Your task to perform on an android device: Open a new Chrome incognito tab Image 0: 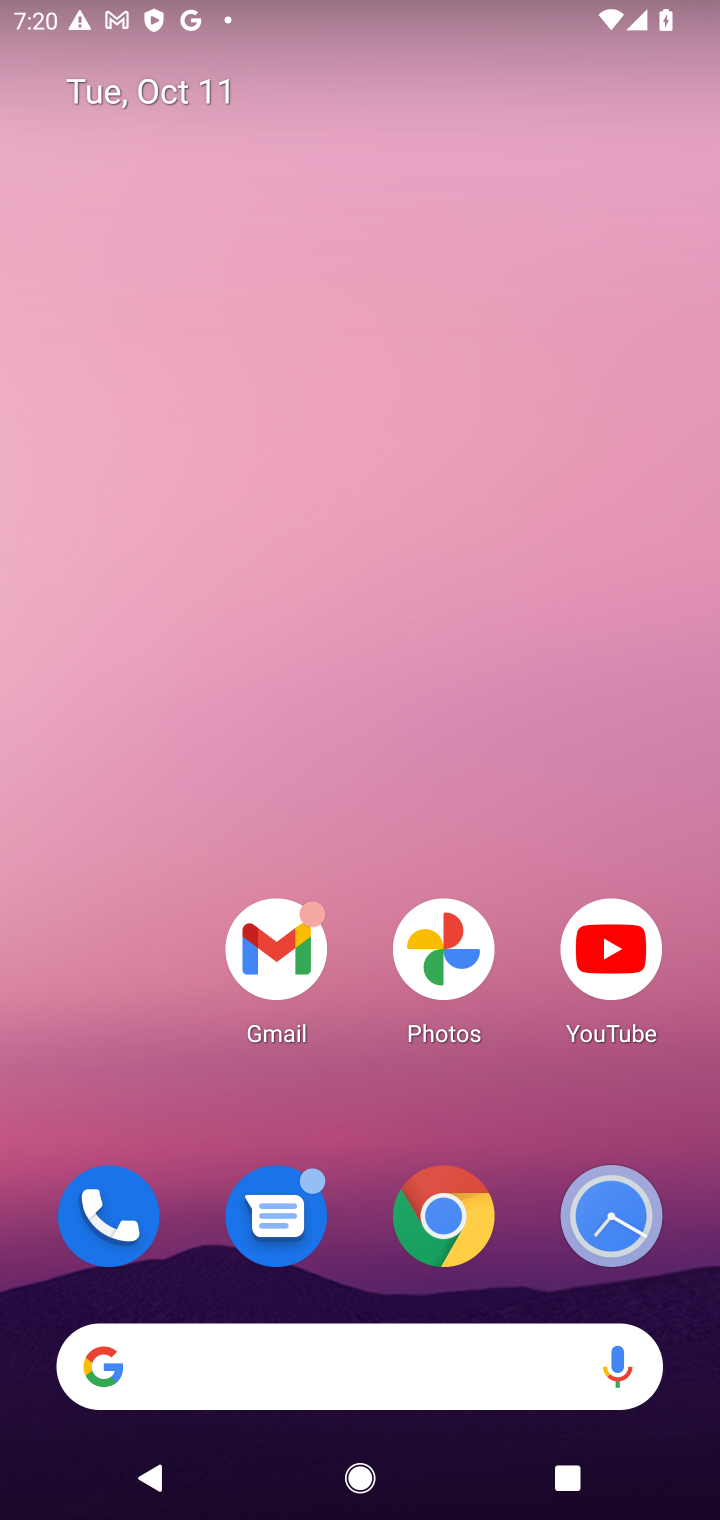
Step 0: click (441, 1238)
Your task to perform on an android device: Open a new Chrome incognito tab Image 1: 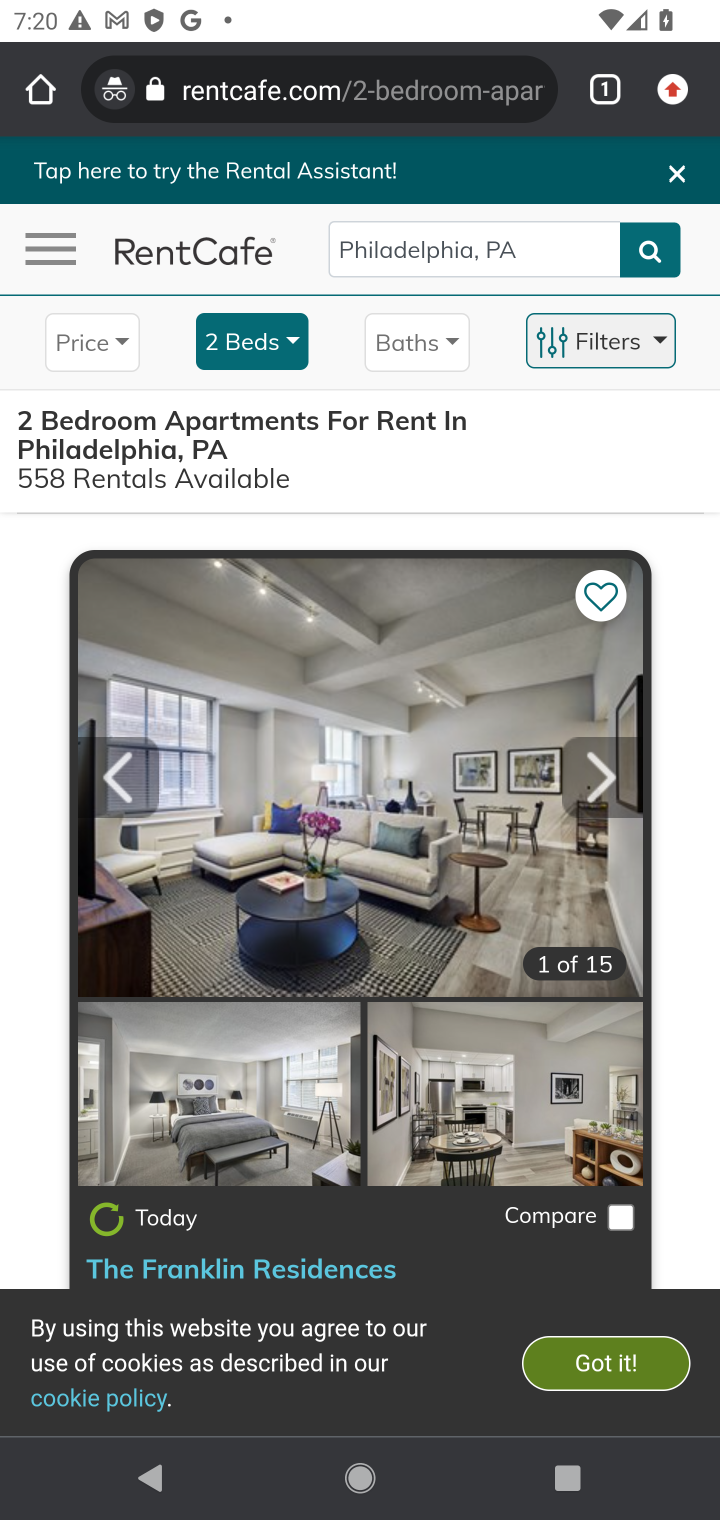
Step 1: click (597, 98)
Your task to perform on an android device: Open a new Chrome incognito tab Image 2: 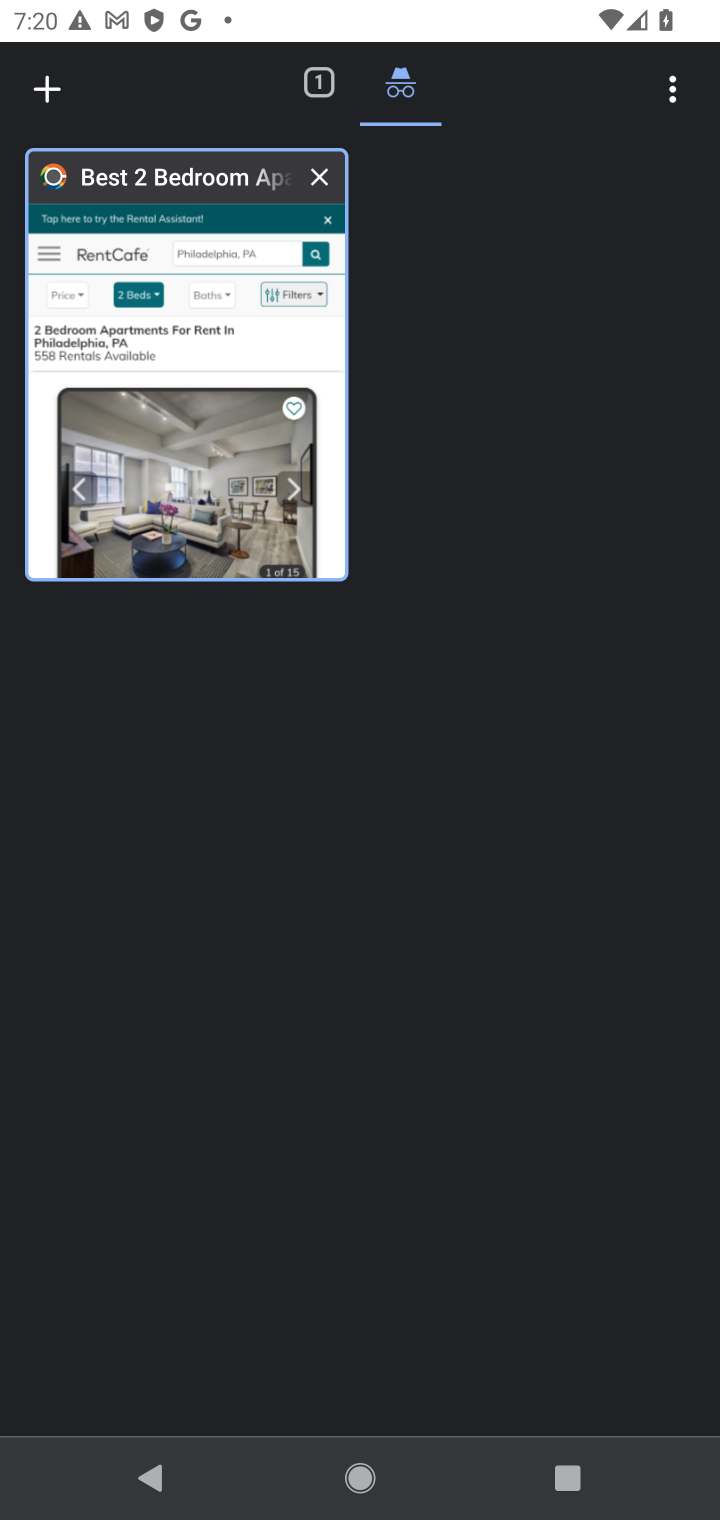
Step 2: click (54, 111)
Your task to perform on an android device: Open a new Chrome incognito tab Image 3: 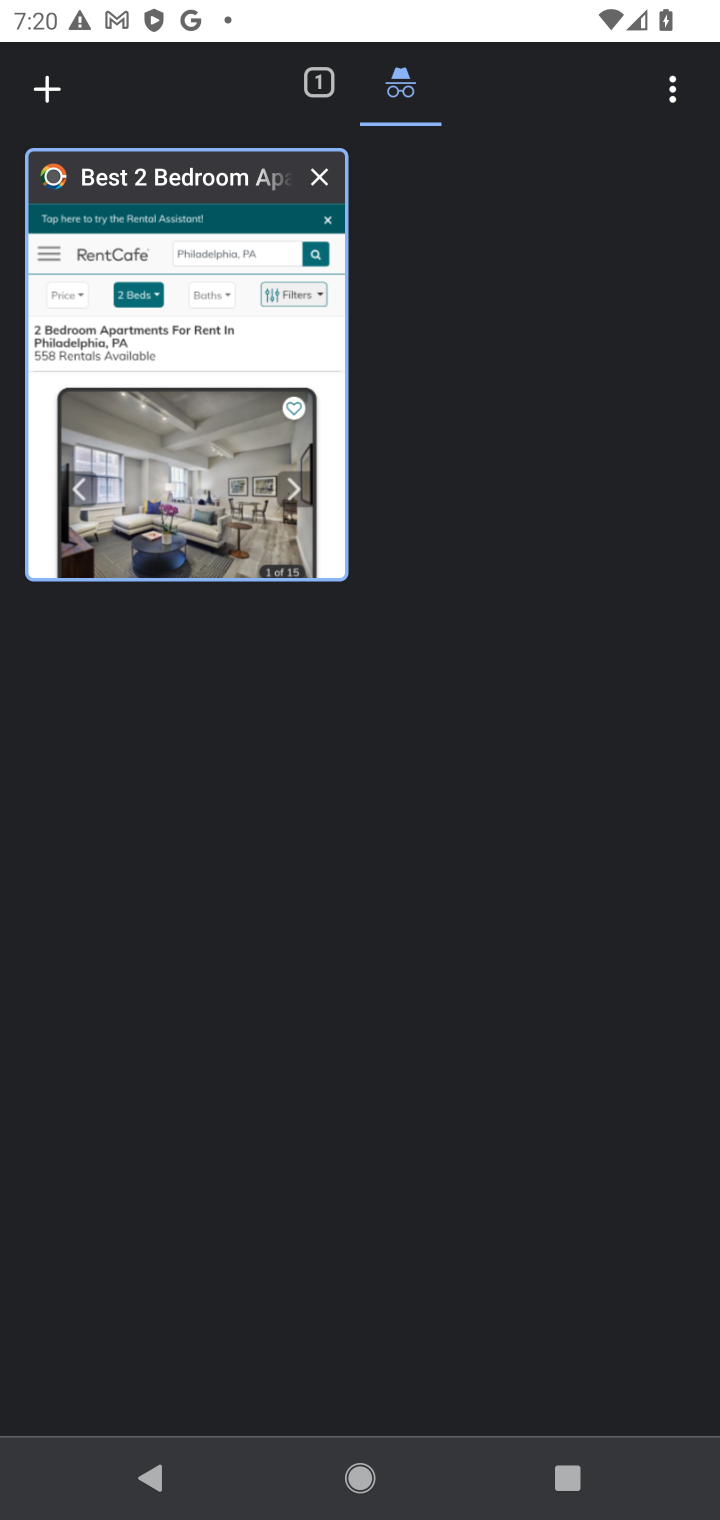
Step 3: click (59, 107)
Your task to perform on an android device: Open a new Chrome incognito tab Image 4: 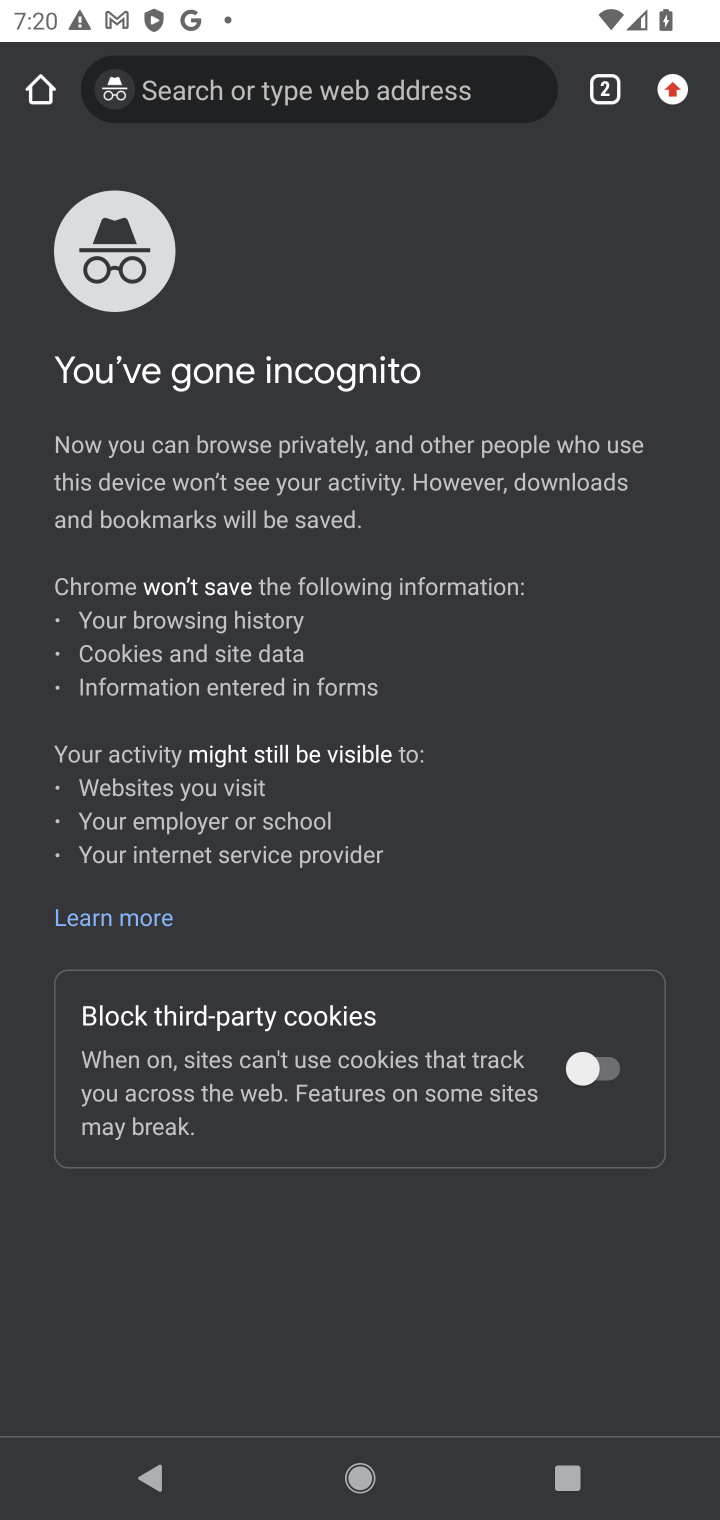
Step 4: task complete